Your task to perform on an android device: Open the map Image 0: 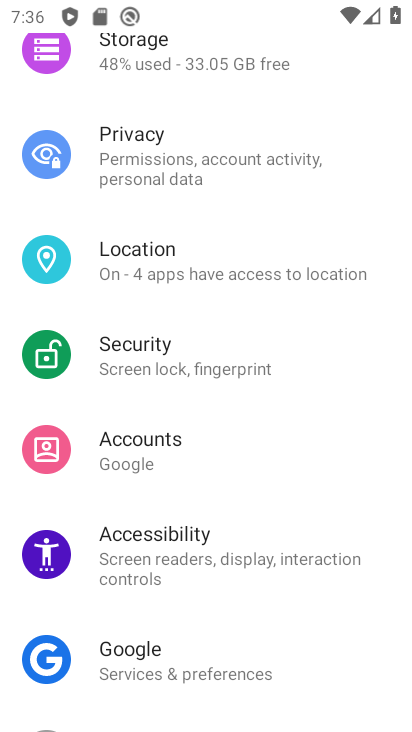
Step 0: press home button
Your task to perform on an android device: Open the map Image 1: 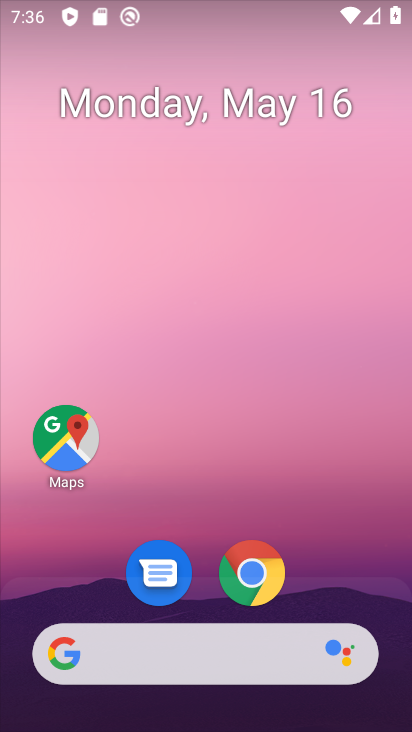
Step 1: drag from (185, 539) to (216, 41)
Your task to perform on an android device: Open the map Image 2: 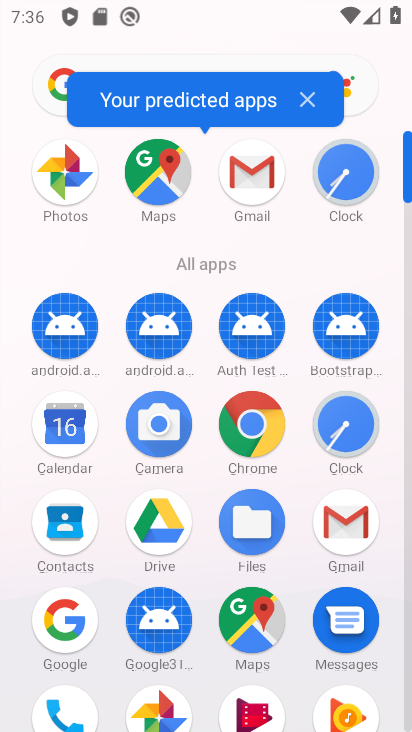
Step 2: click (254, 628)
Your task to perform on an android device: Open the map Image 3: 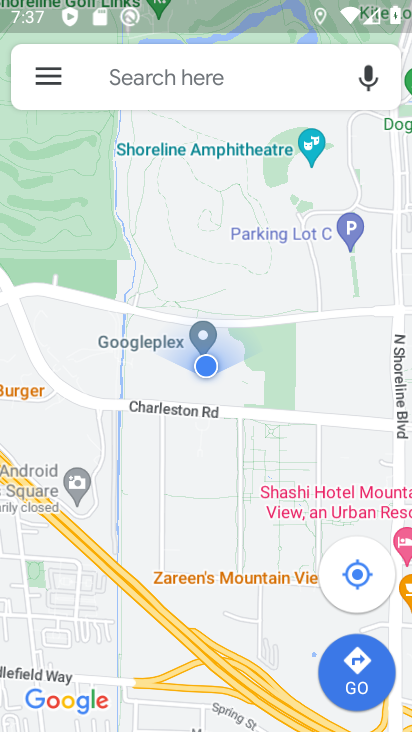
Step 3: task complete